Your task to perform on an android device: Open Chrome and go to settings Image 0: 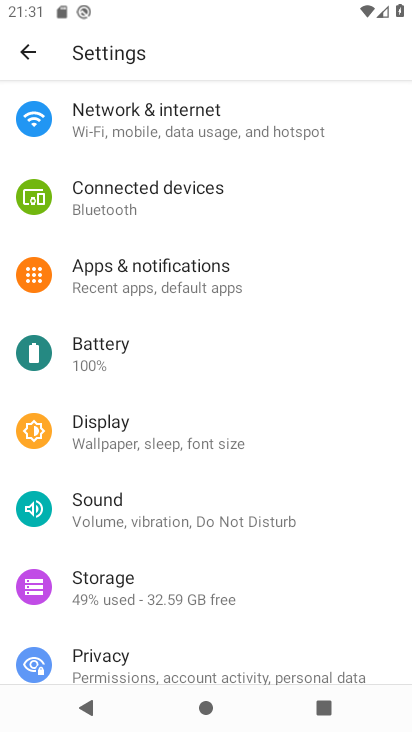
Step 0: press home button
Your task to perform on an android device: Open Chrome and go to settings Image 1: 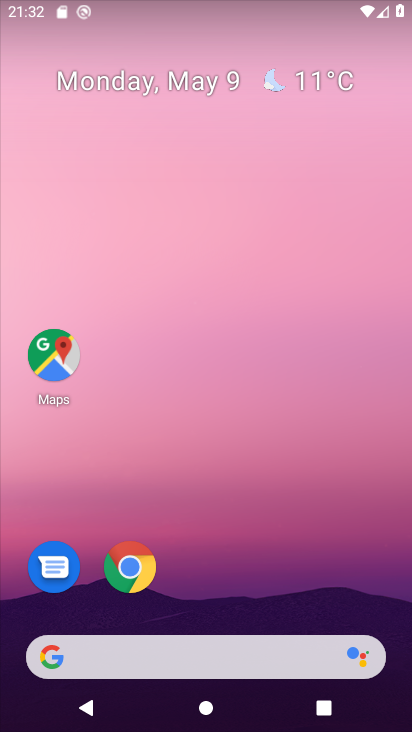
Step 1: click (137, 568)
Your task to perform on an android device: Open Chrome and go to settings Image 2: 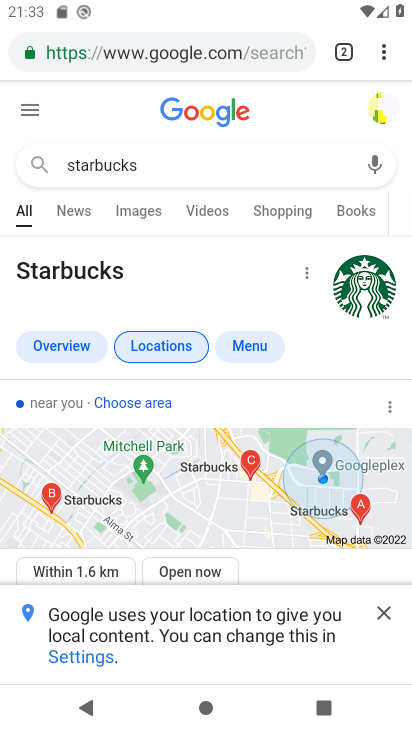
Step 2: click (386, 51)
Your task to perform on an android device: Open Chrome and go to settings Image 3: 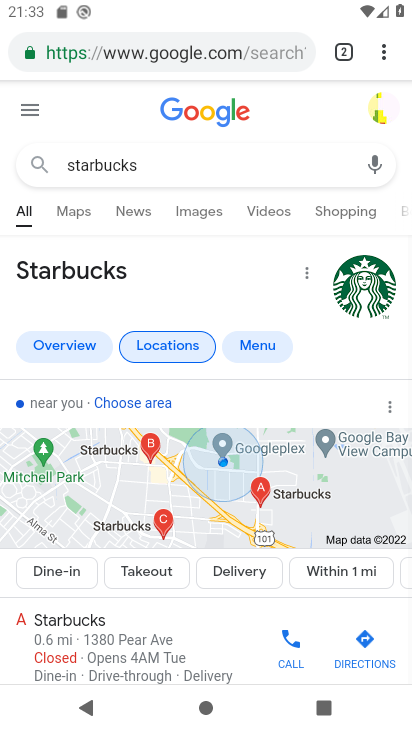
Step 3: click (381, 47)
Your task to perform on an android device: Open Chrome and go to settings Image 4: 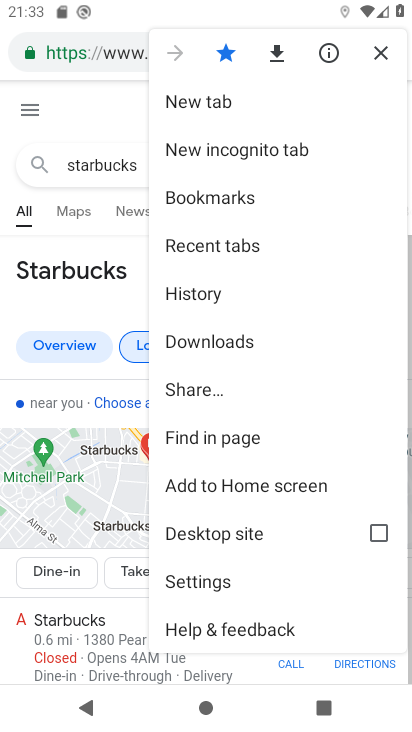
Step 4: click (219, 584)
Your task to perform on an android device: Open Chrome and go to settings Image 5: 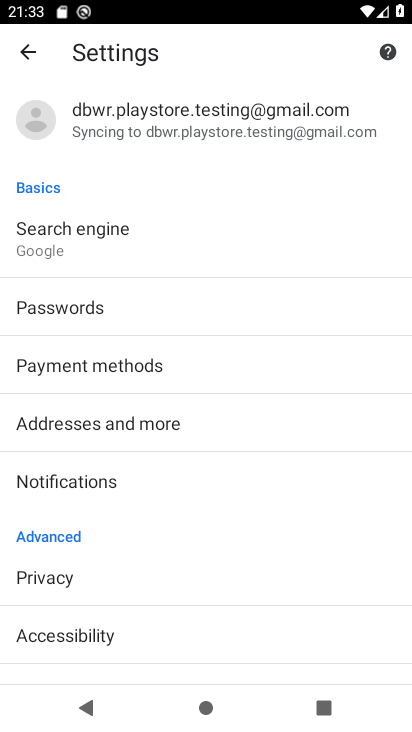
Step 5: task complete